Your task to perform on an android device: toggle priority inbox in the gmail app Image 0: 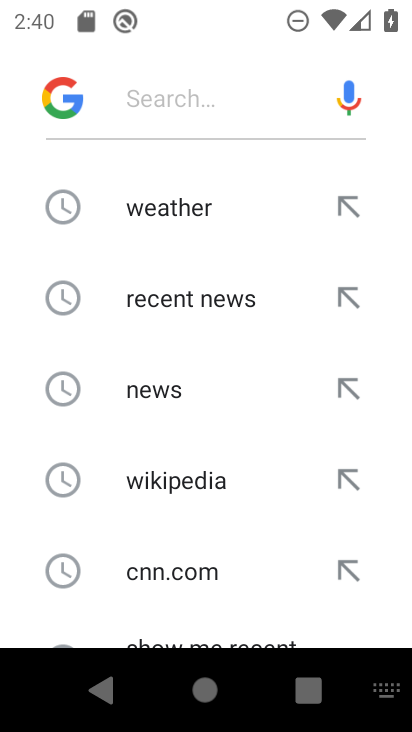
Step 0: press home button
Your task to perform on an android device: toggle priority inbox in the gmail app Image 1: 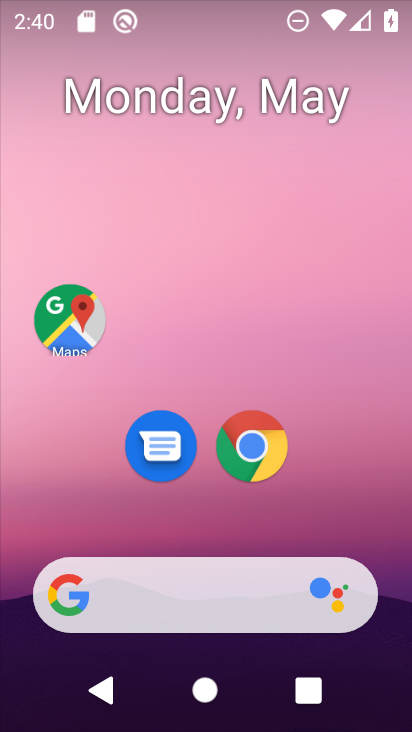
Step 1: drag from (186, 482) to (150, 185)
Your task to perform on an android device: toggle priority inbox in the gmail app Image 2: 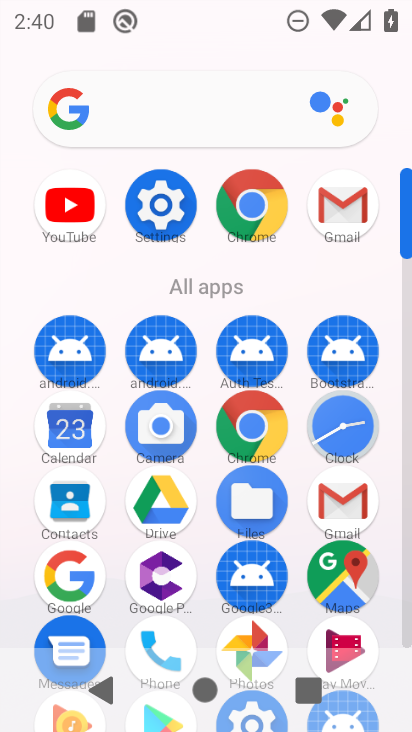
Step 2: click (359, 193)
Your task to perform on an android device: toggle priority inbox in the gmail app Image 3: 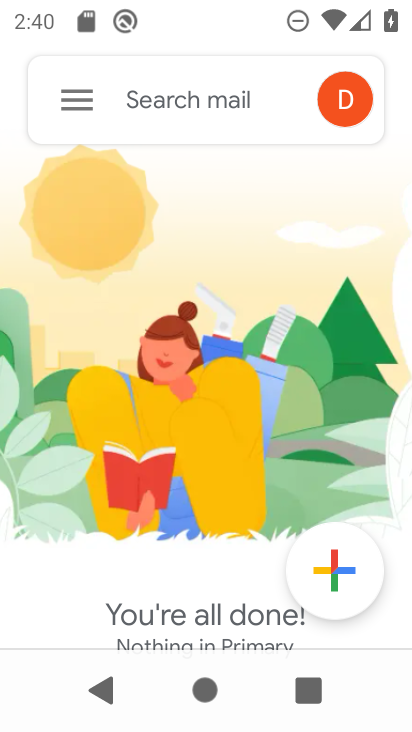
Step 3: click (70, 100)
Your task to perform on an android device: toggle priority inbox in the gmail app Image 4: 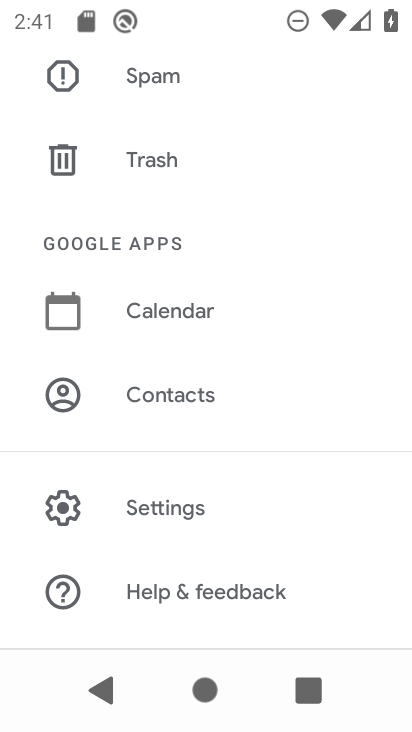
Step 4: click (133, 502)
Your task to perform on an android device: toggle priority inbox in the gmail app Image 5: 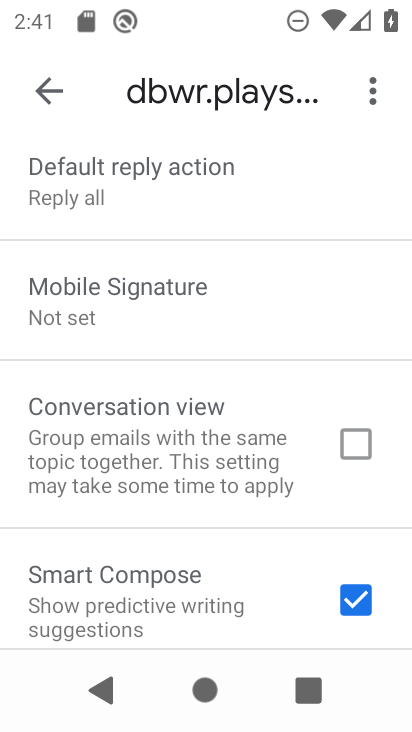
Step 5: drag from (135, 209) to (168, 582)
Your task to perform on an android device: toggle priority inbox in the gmail app Image 6: 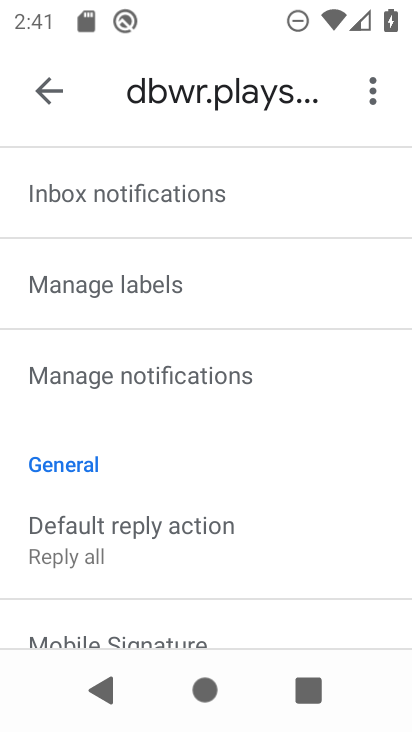
Step 6: drag from (132, 224) to (194, 591)
Your task to perform on an android device: toggle priority inbox in the gmail app Image 7: 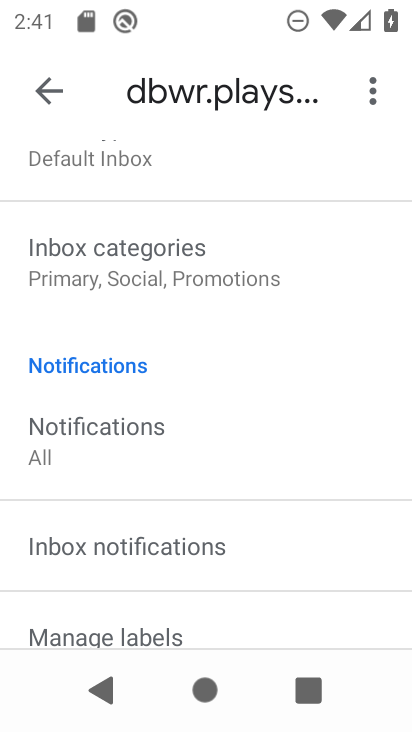
Step 7: drag from (78, 269) to (152, 540)
Your task to perform on an android device: toggle priority inbox in the gmail app Image 8: 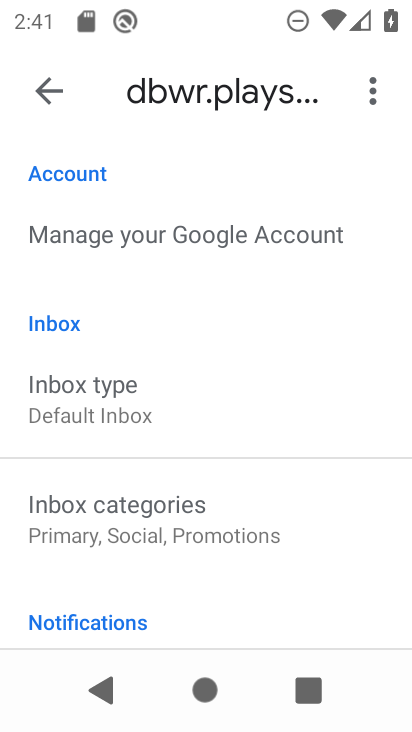
Step 8: click (85, 448)
Your task to perform on an android device: toggle priority inbox in the gmail app Image 9: 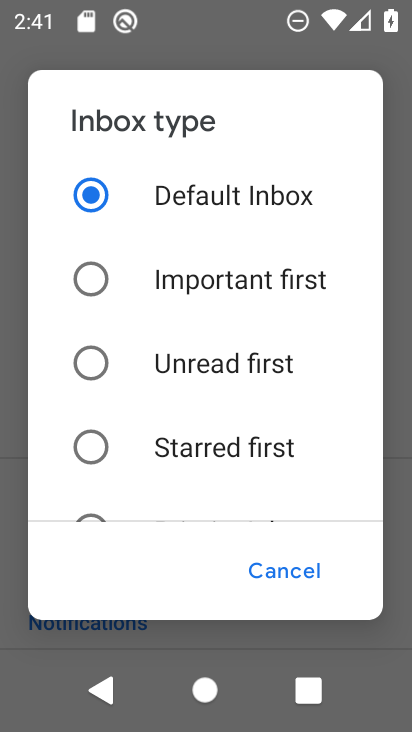
Step 9: click (87, 366)
Your task to perform on an android device: toggle priority inbox in the gmail app Image 10: 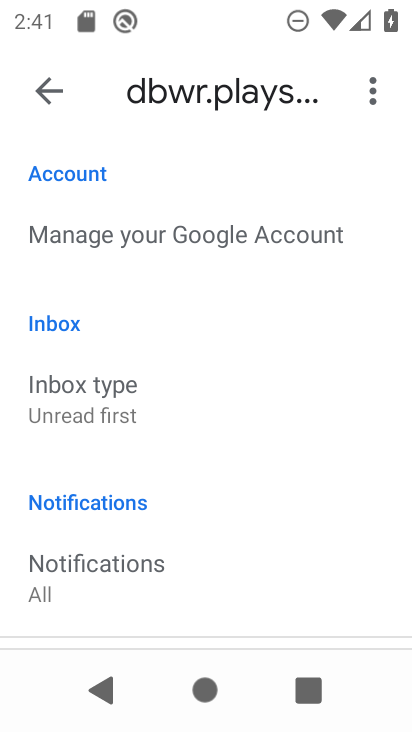
Step 10: task complete